Your task to perform on an android device: change the clock style Image 0: 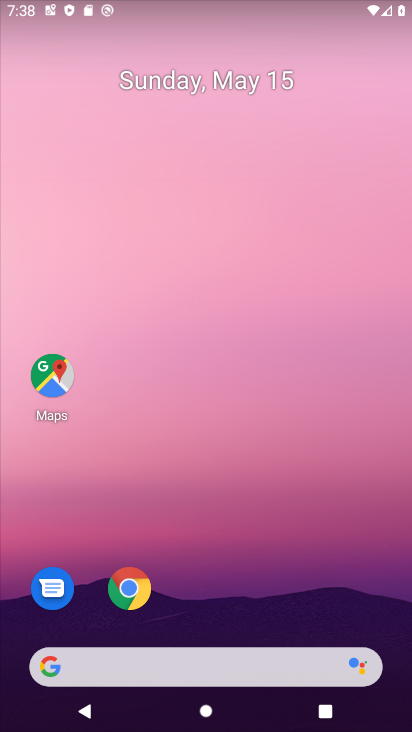
Step 0: drag from (214, 617) to (298, 88)
Your task to perform on an android device: change the clock style Image 1: 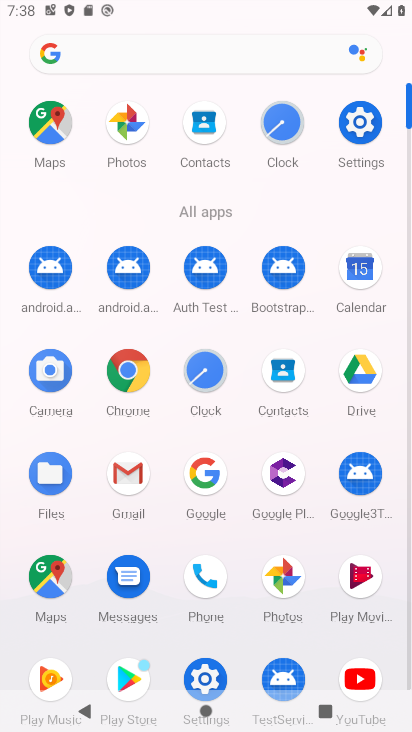
Step 1: click (208, 363)
Your task to perform on an android device: change the clock style Image 2: 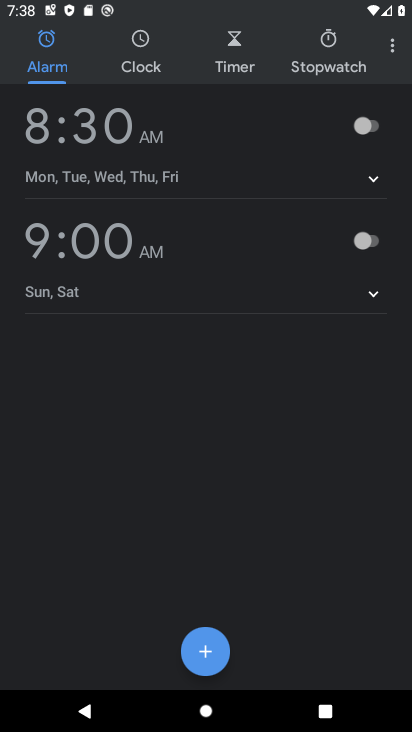
Step 2: click (381, 41)
Your task to perform on an android device: change the clock style Image 3: 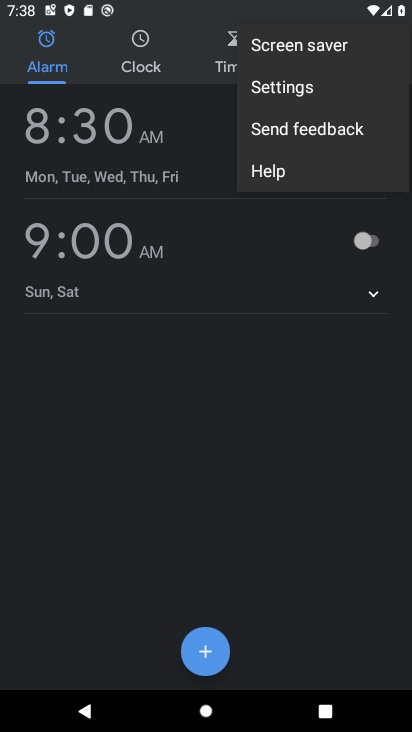
Step 3: click (307, 85)
Your task to perform on an android device: change the clock style Image 4: 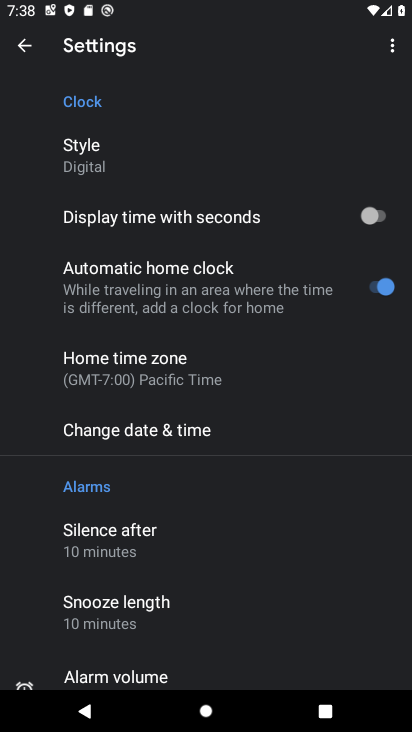
Step 4: click (112, 150)
Your task to perform on an android device: change the clock style Image 5: 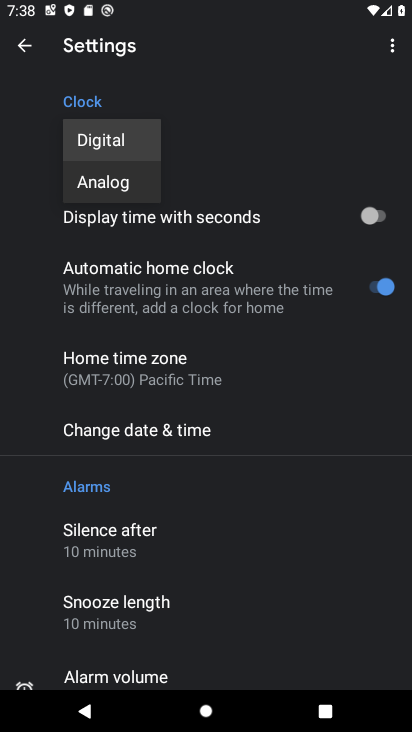
Step 5: click (121, 189)
Your task to perform on an android device: change the clock style Image 6: 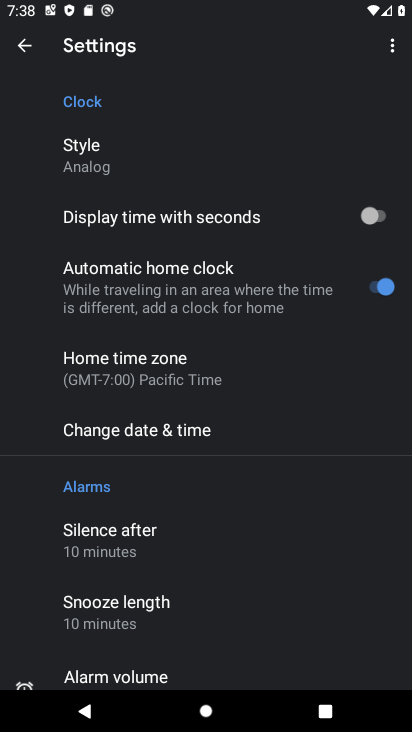
Step 6: task complete